Your task to perform on an android device: turn notification dots on Image 0: 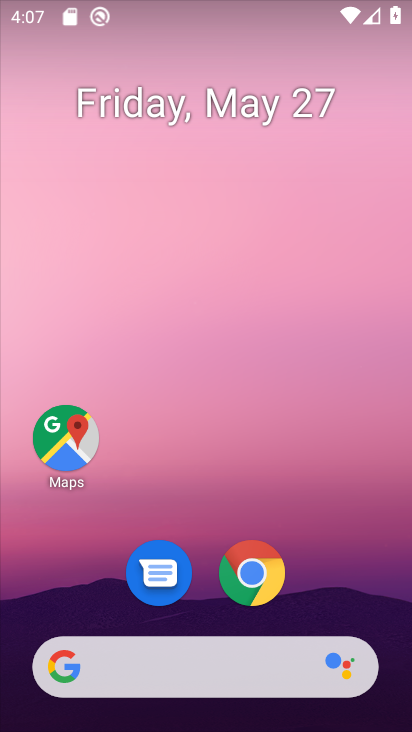
Step 0: drag from (210, 505) to (226, 59)
Your task to perform on an android device: turn notification dots on Image 1: 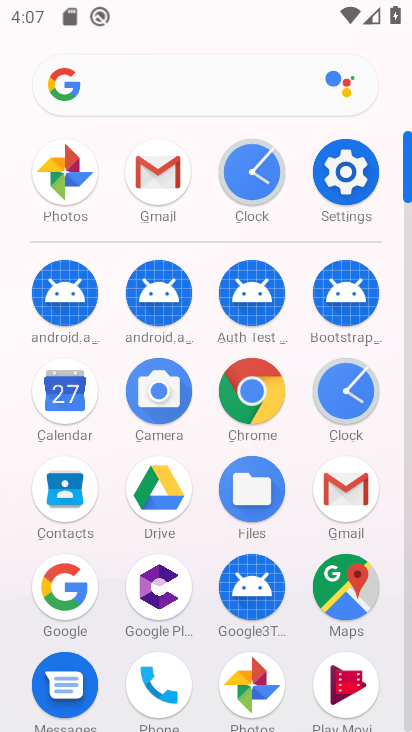
Step 1: click (330, 174)
Your task to perform on an android device: turn notification dots on Image 2: 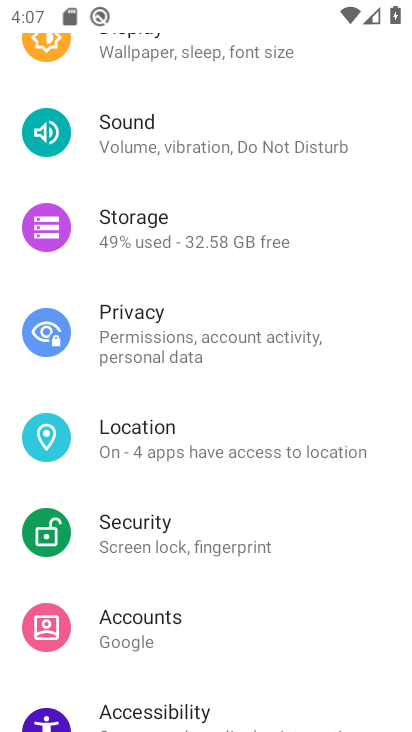
Step 2: drag from (252, 215) to (243, 697)
Your task to perform on an android device: turn notification dots on Image 3: 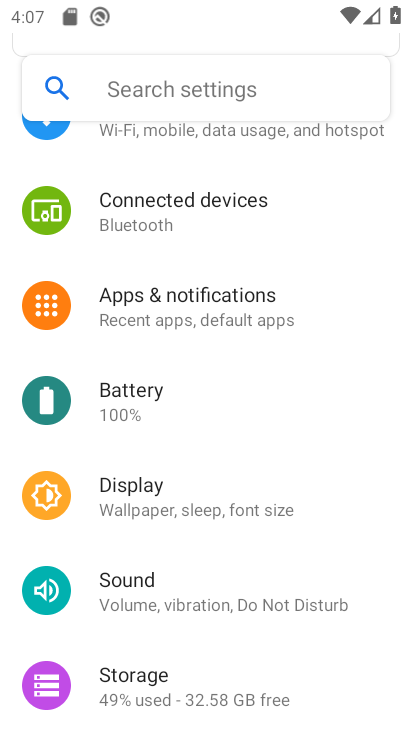
Step 3: click (255, 309)
Your task to perform on an android device: turn notification dots on Image 4: 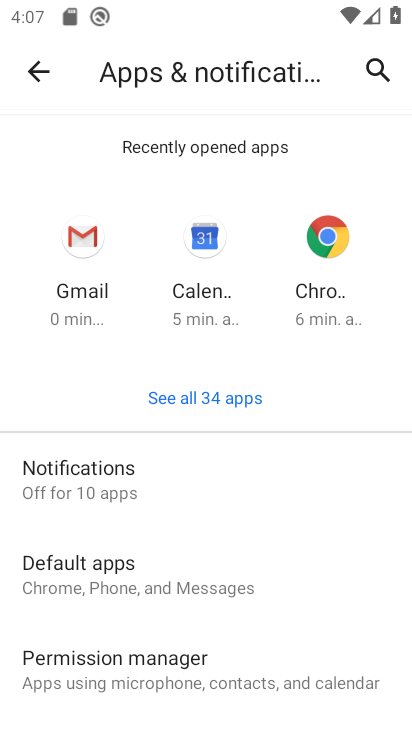
Step 4: click (231, 479)
Your task to perform on an android device: turn notification dots on Image 5: 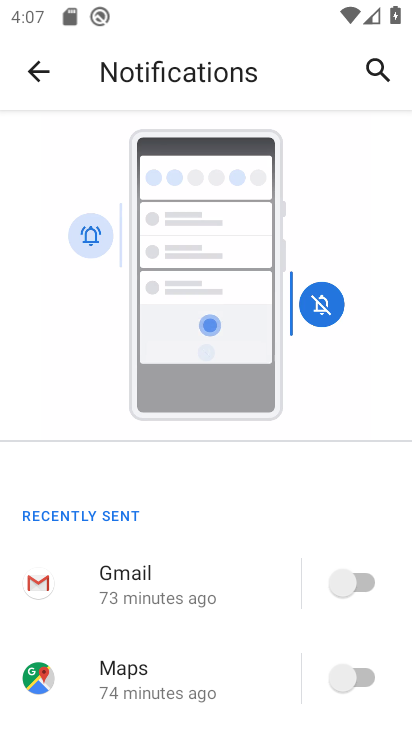
Step 5: drag from (229, 657) to (279, 150)
Your task to perform on an android device: turn notification dots on Image 6: 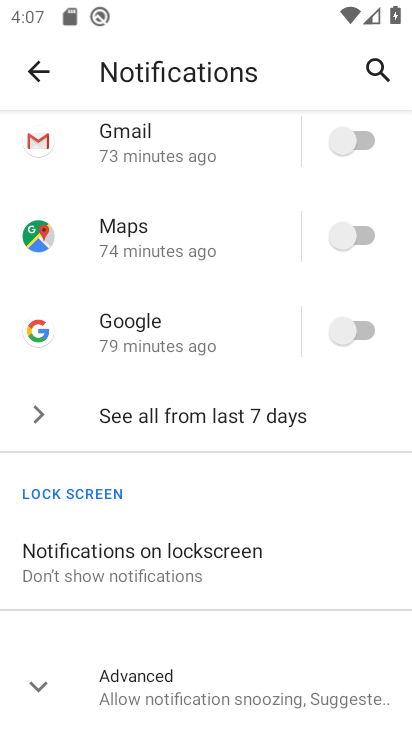
Step 6: drag from (261, 507) to (261, 204)
Your task to perform on an android device: turn notification dots on Image 7: 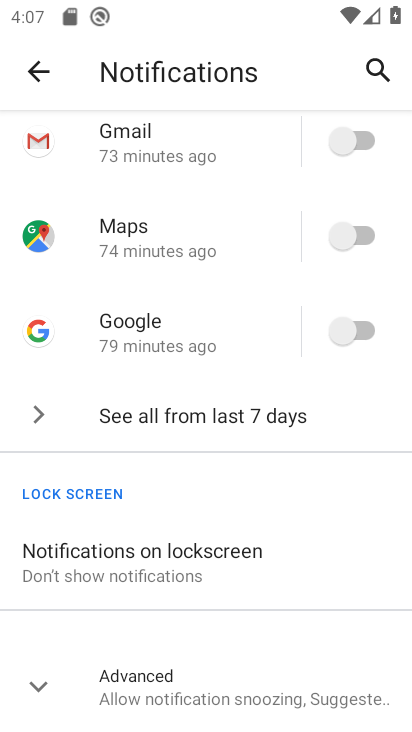
Step 7: click (38, 677)
Your task to perform on an android device: turn notification dots on Image 8: 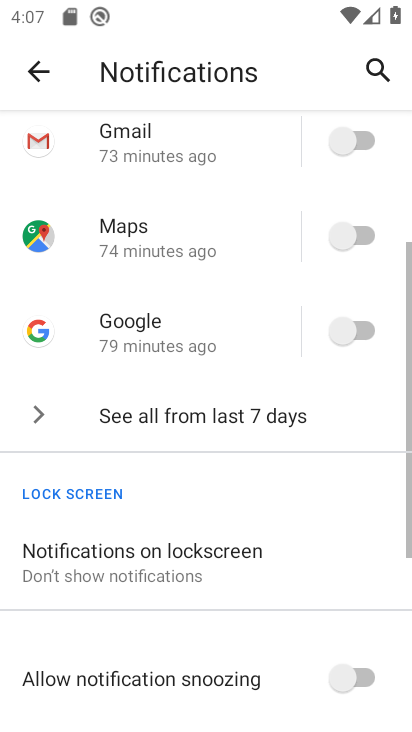
Step 8: task complete